Your task to perform on an android device: toggle javascript in the chrome app Image 0: 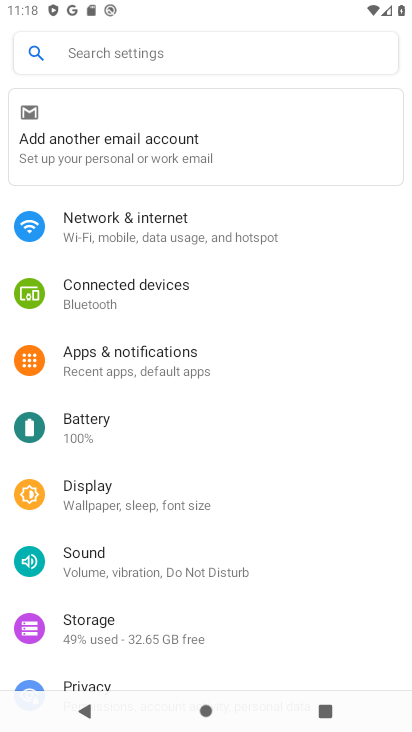
Step 0: press home button
Your task to perform on an android device: toggle javascript in the chrome app Image 1: 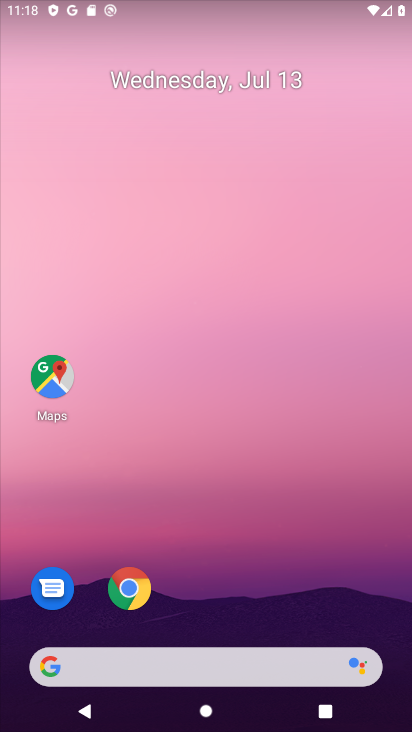
Step 1: click (133, 586)
Your task to perform on an android device: toggle javascript in the chrome app Image 2: 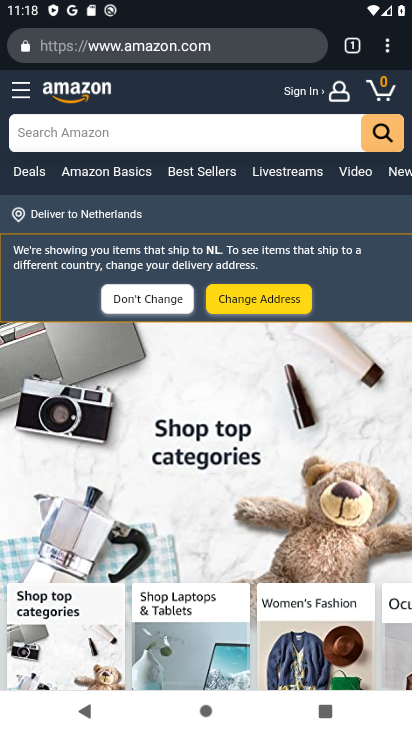
Step 2: click (383, 46)
Your task to perform on an android device: toggle javascript in the chrome app Image 3: 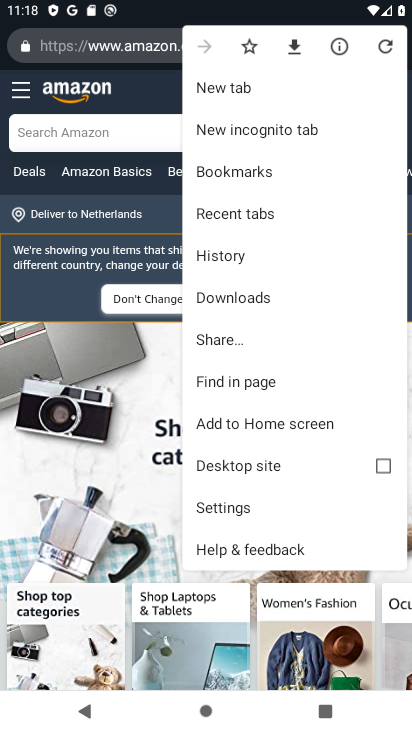
Step 3: click (254, 516)
Your task to perform on an android device: toggle javascript in the chrome app Image 4: 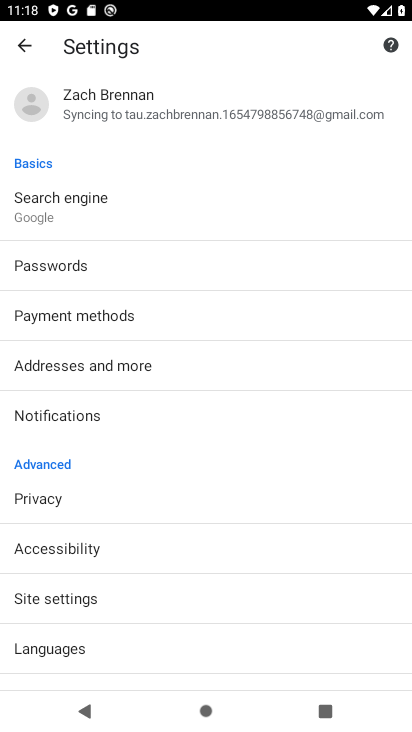
Step 4: click (65, 597)
Your task to perform on an android device: toggle javascript in the chrome app Image 5: 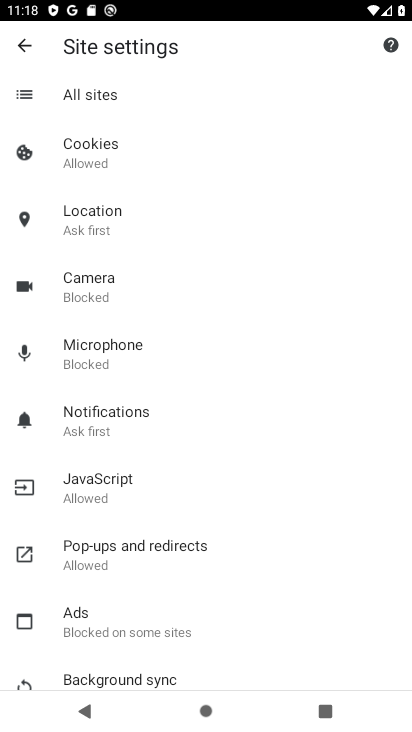
Step 5: click (126, 493)
Your task to perform on an android device: toggle javascript in the chrome app Image 6: 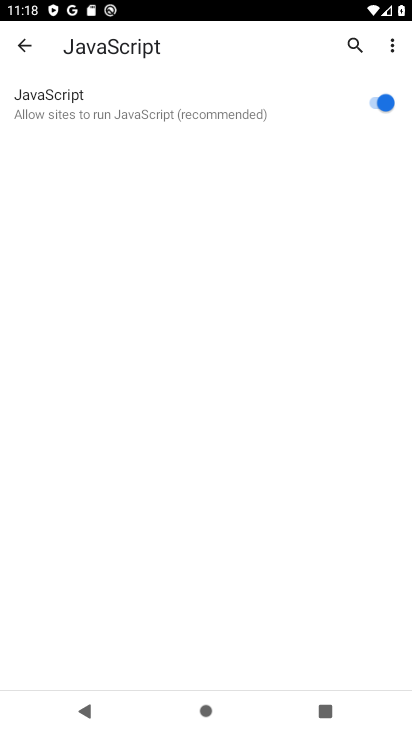
Step 6: click (379, 103)
Your task to perform on an android device: toggle javascript in the chrome app Image 7: 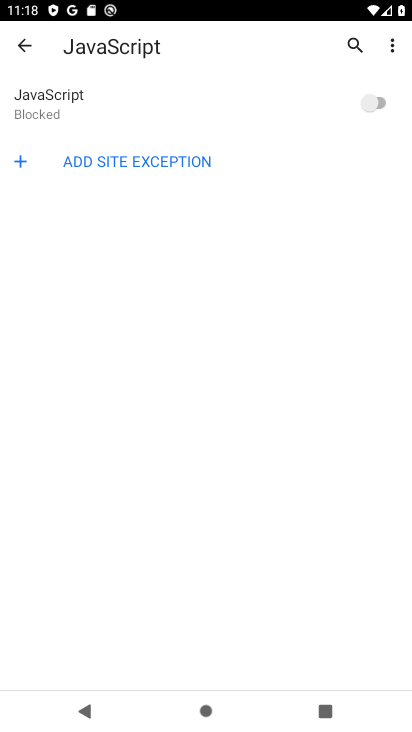
Step 7: task complete